Your task to perform on an android device: Search for Mexican restaurants on Maps Image 0: 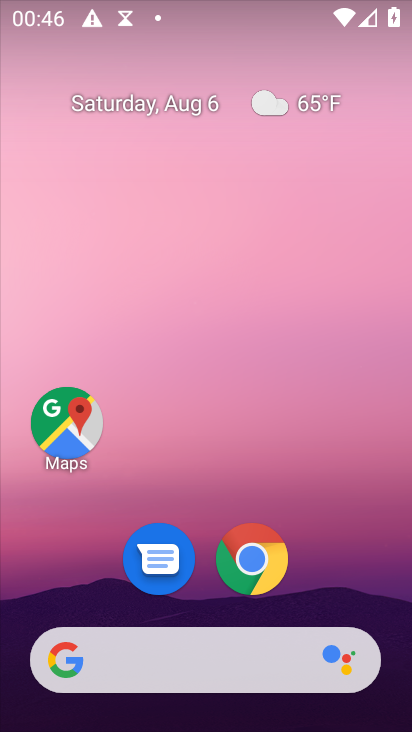
Step 0: click (53, 444)
Your task to perform on an android device: Search for Mexican restaurants on Maps Image 1: 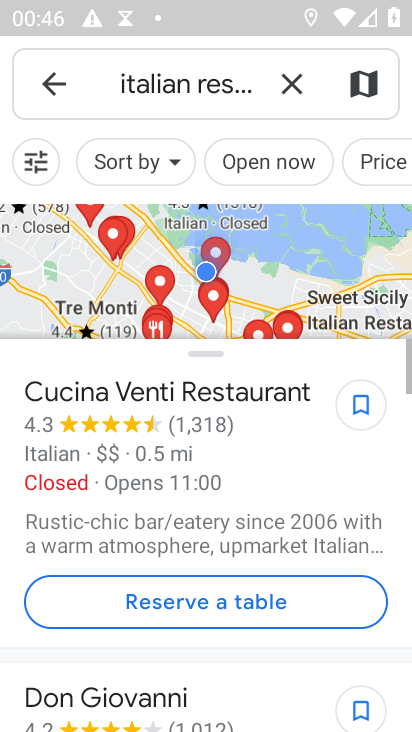
Step 1: click (291, 89)
Your task to perform on an android device: Search for Mexican restaurants on Maps Image 2: 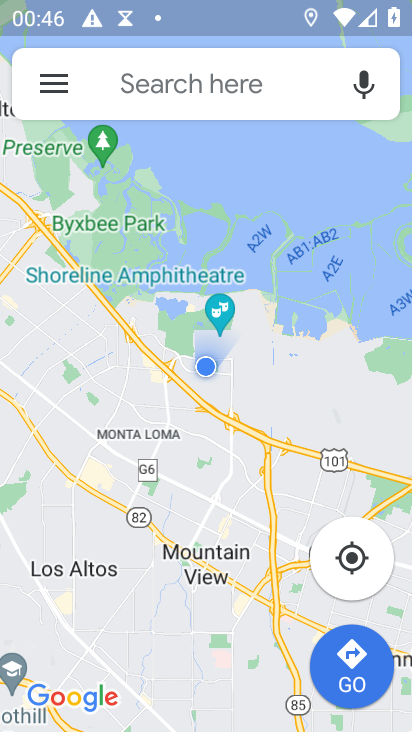
Step 2: click (109, 70)
Your task to perform on an android device: Search for Mexican restaurants on Maps Image 3: 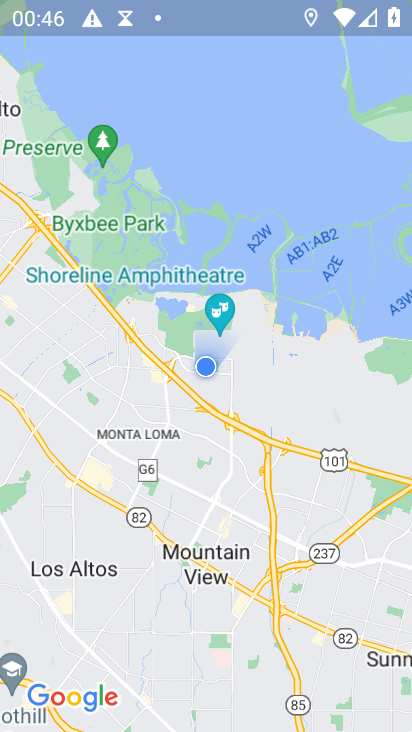
Step 3: press back button
Your task to perform on an android device: Search for Mexican restaurants on Maps Image 4: 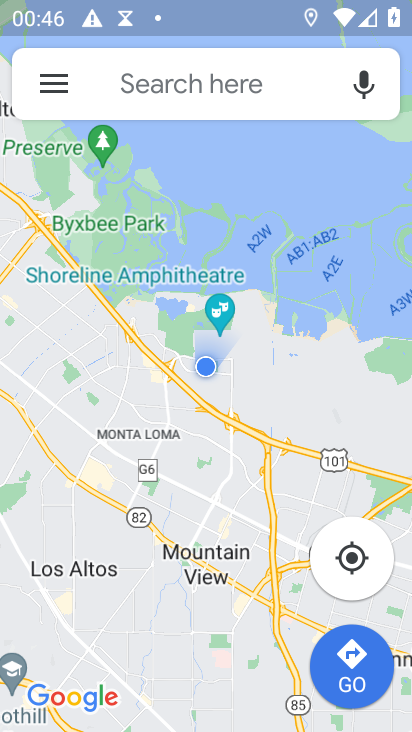
Step 4: click (186, 87)
Your task to perform on an android device: Search for Mexican restaurants on Maps Image 5: 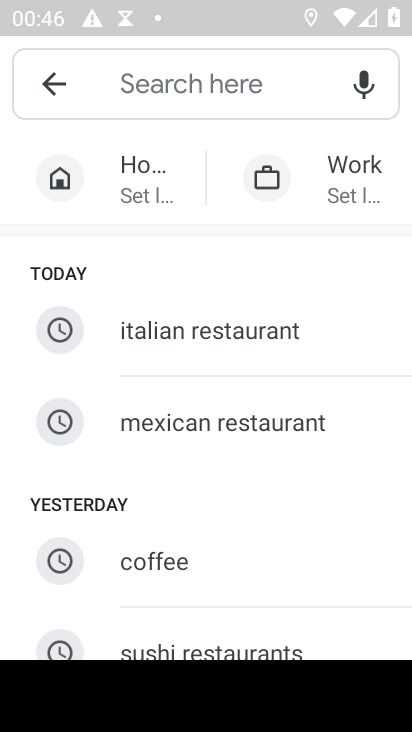
Step 5: click (215, 412)
Your task to perform on an android device: Search for Mexican restaurants on Maps Image 6: 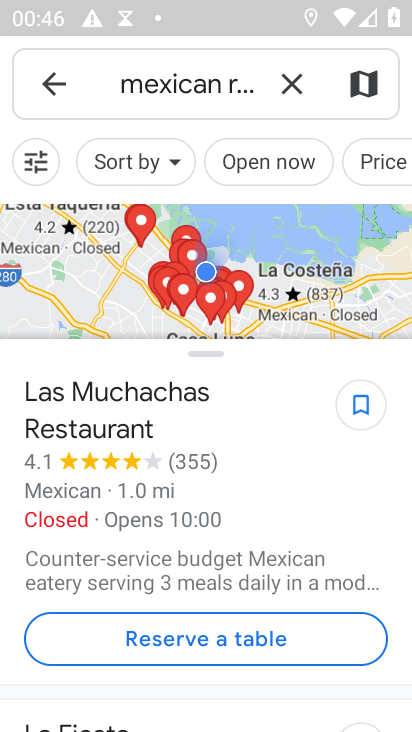
Step 6: task complete